Your task to perform on an android device: allow notifications from all sites in the chrome app Image 0: 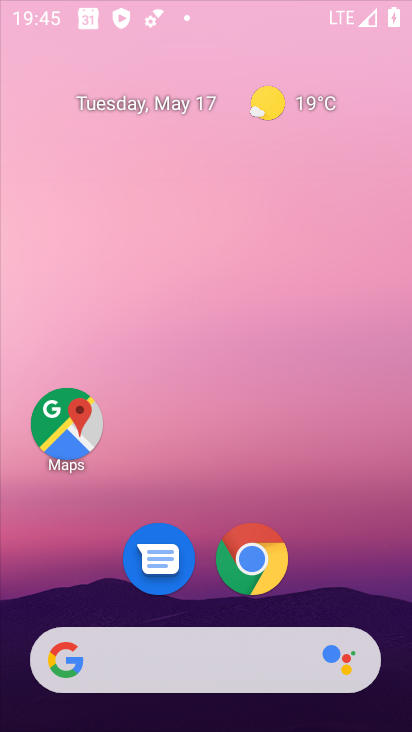
Step 0: click (346, 267)
Your task to perform on an android device: allow notifications from all sites in the chrome app Image 1: 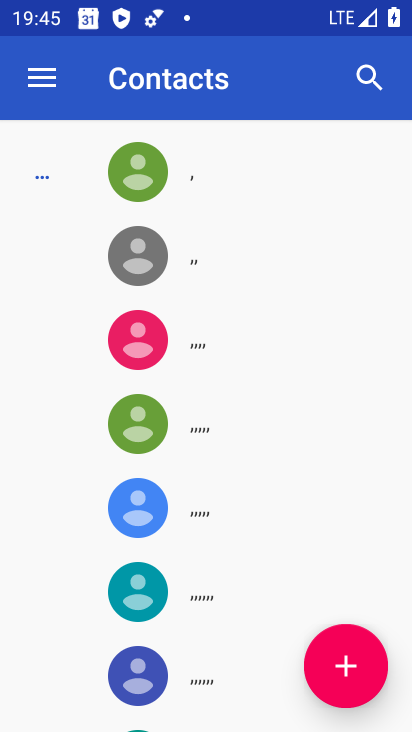
Step 1: drag from (199, 589) to (257, 216)
Your task to perform on an android device: allow notifications from all sites in the chrome app Image 2: 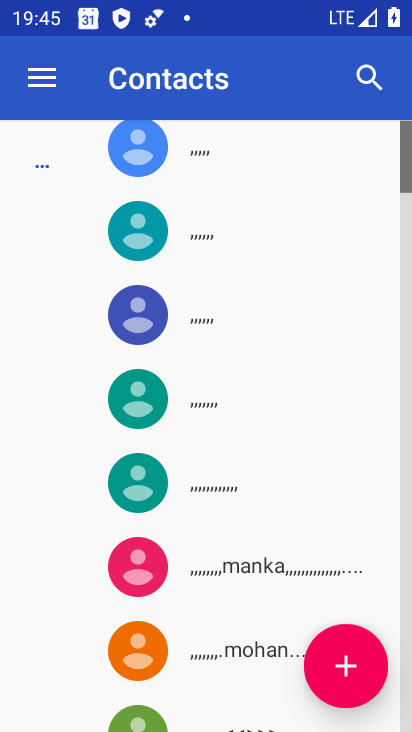
Step 2: press home button
Your task to perform on an android device: allow notifications from all sites in the chrome app Image 3: 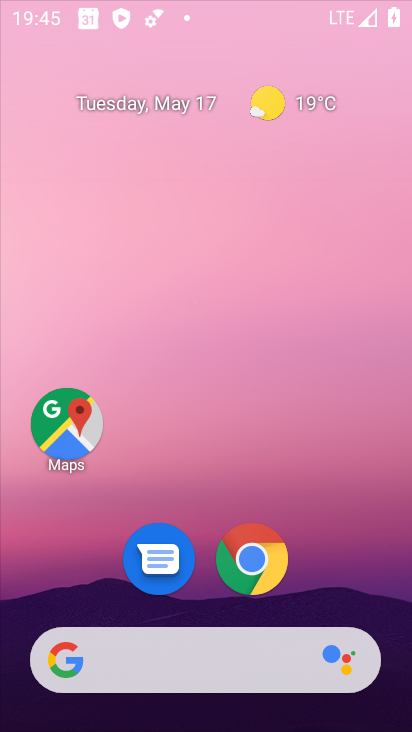
Step 3: drag from (217, 659) to (242, 233)
Your task to perform on an android device: allow notifications from all sites in the chrome app Image 4: 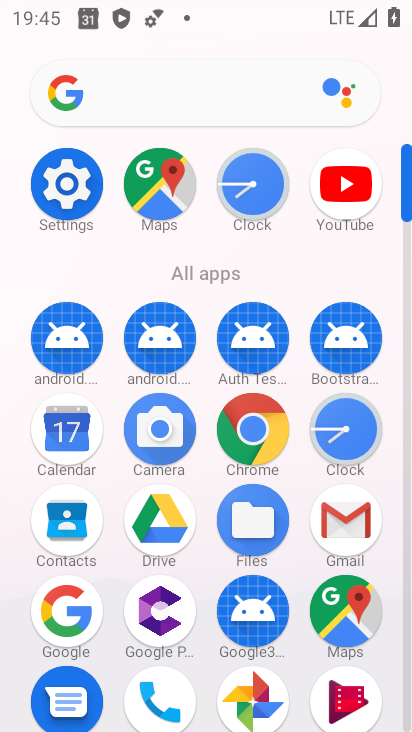
Step 4: click (253, 429)
Your task to perform on an android device: allow notifications from all sites in the chrome app Image 5: 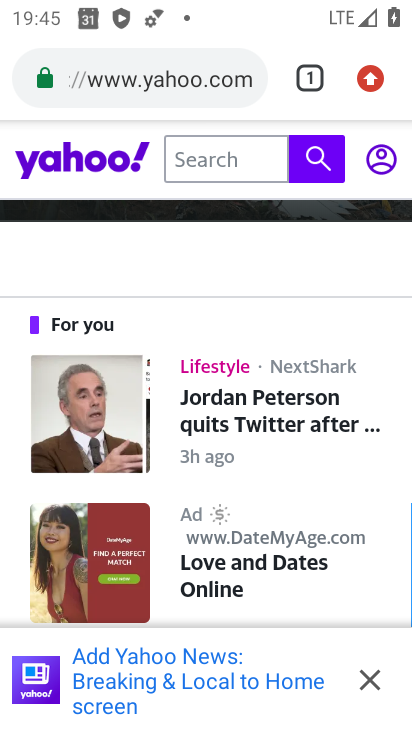
Step 5: click (367, 80)
Your task to perform on an android device: allow notifications from all sites in the chrome app Image 6: 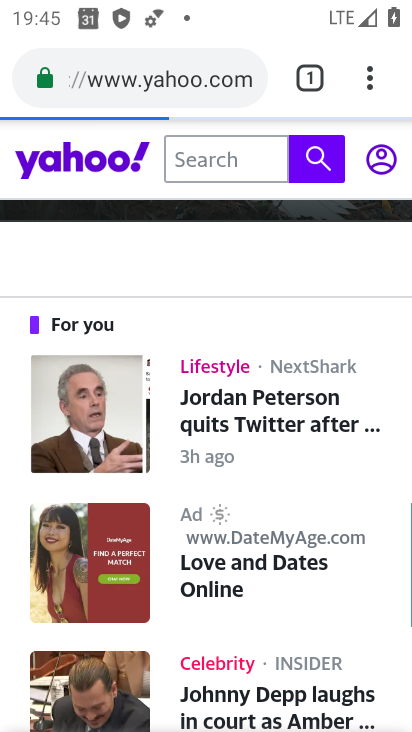
Step 6: click (371, 74)
Your task to perform on an android device: allow notifications from all sites in the chrome app Image 7: 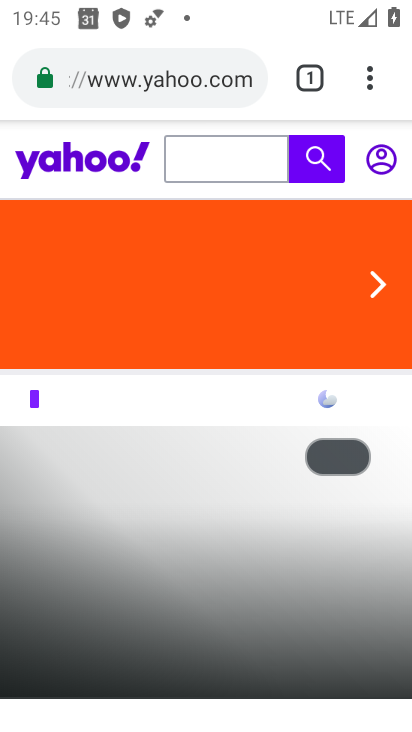
Step 7: click (371, 74)
Your task to perform on an android device: allow notifications from all sites in the chrome app Image 8: 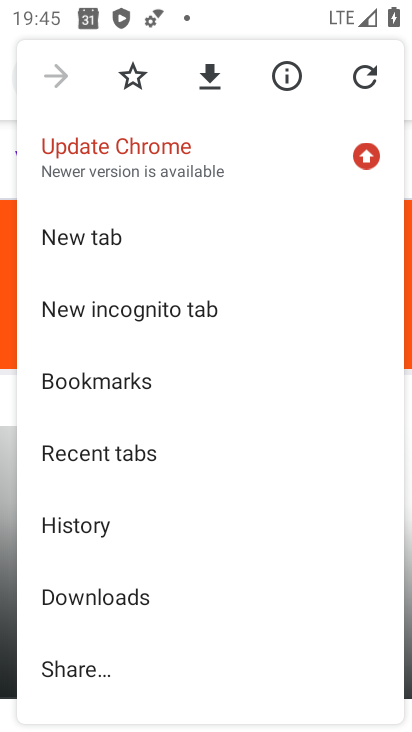
Step 8: drag from (156, 607) to (206, 54)
Your task to perform on an android device: allow notifications from all sites in the chrome app Image 9: 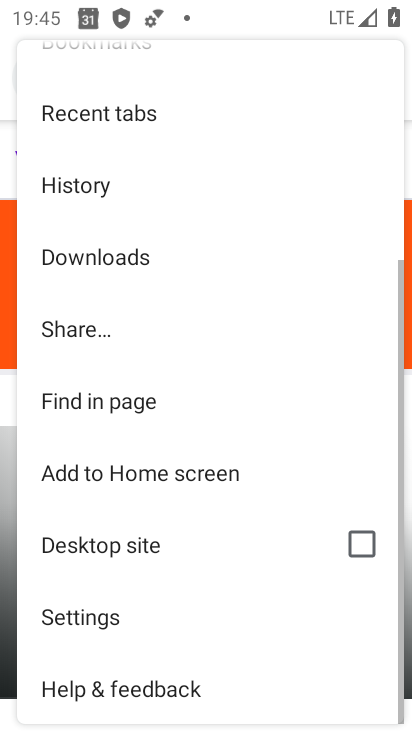
Step 9: click (104, 615)
Your task to perform on an android device: allow notifications from all sites in the chrome app Image 10: 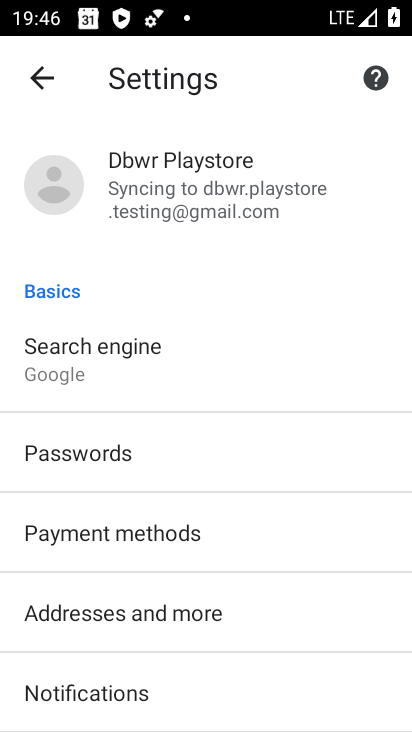
Step 10: drag from (115, 616) to (199, 68)
Your task to perform on an android device: allow notifications from all sites in the chrome app Image 11: 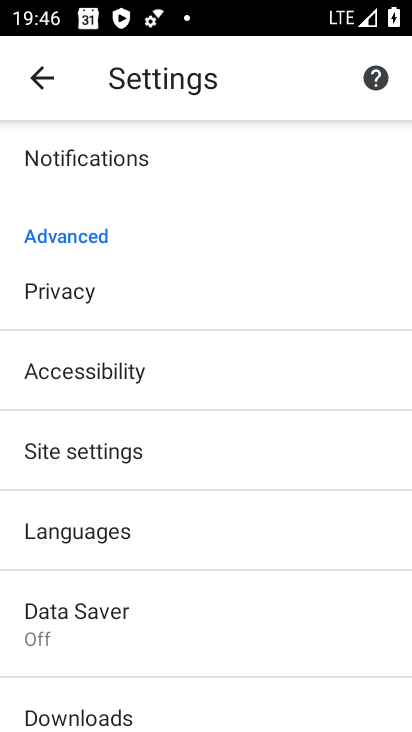
Step 11: click (66, 470)
Your task to perform on an android device: allow notifications from all sites in the chrome app Image 12: 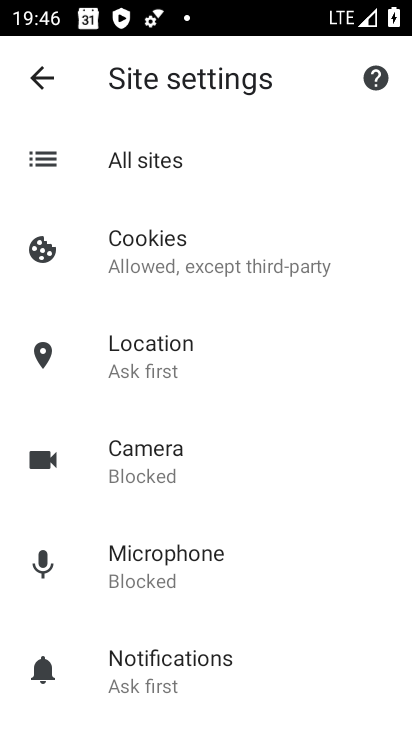
Step 12: click (162, 659)
Your task to perform on an android device: allow notifications from all sites in the chrome app Image 13: 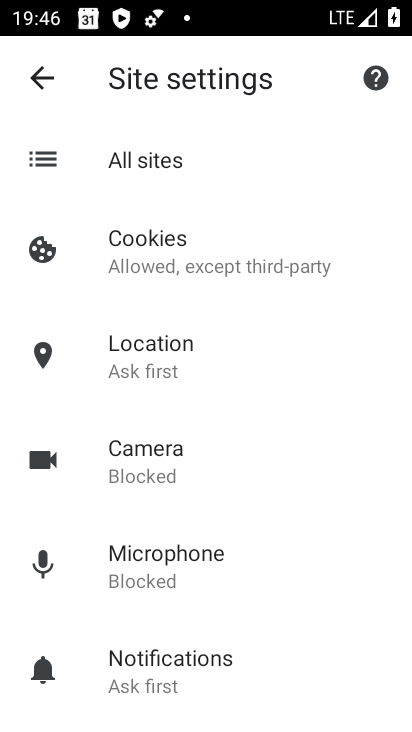
Step 13: click (162, 659)
Your task to perform on an android device: allow notifications from all sites in the chrome app Image 14: 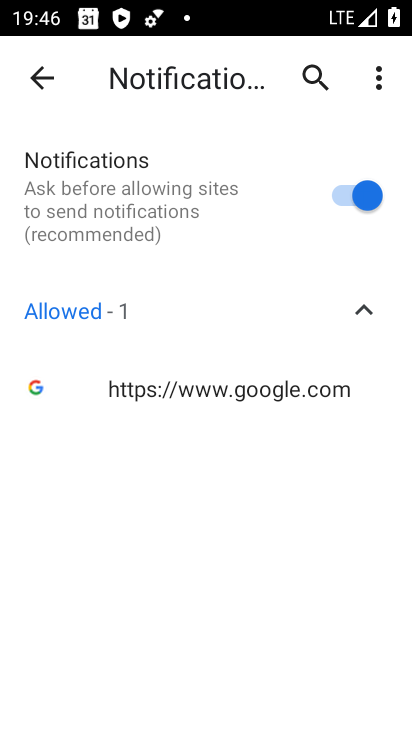
Step 14: task complete